Your task to perform on an android device: allow notifications from all sites in the chrome app Image 0: 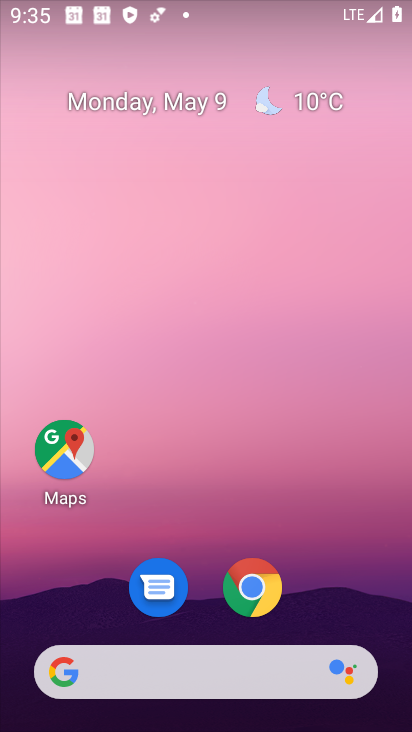
Step 0: drag from (349, 576) to (291, 137)
Your task to perform on an android device: allow notifications from all sites in the chrome app Image 1: 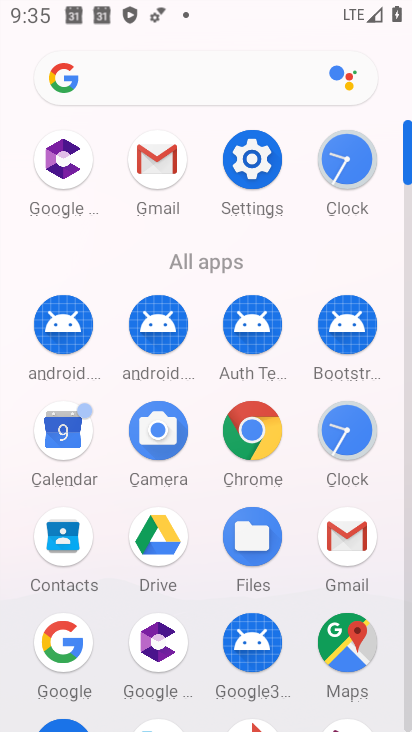
Step 1: click (246, 432)
Your task to perform on an android device: allow notifications from all sites in the chrome app Image 2: 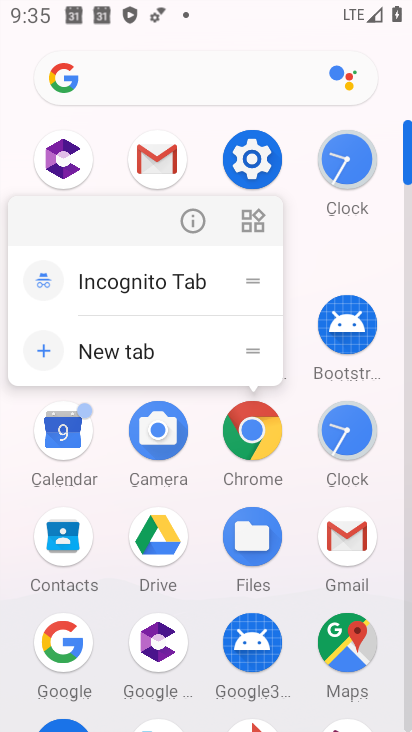
Step 2: click (190, 225)
Your task to perform on an android device: allow notifications from all sites in the chrome app Image 3: 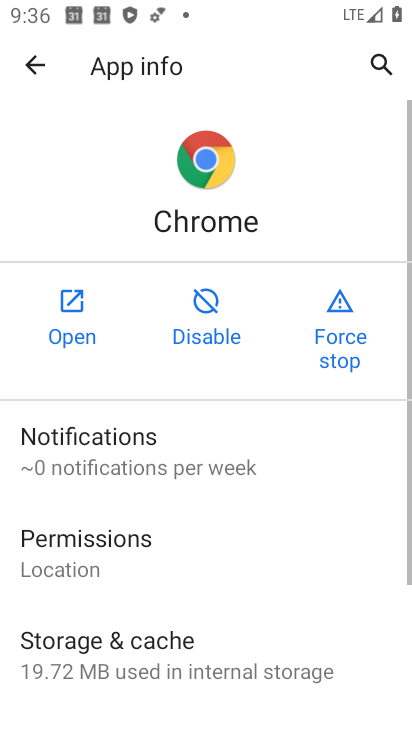
Step 3: click (180, 456)
Your task to perform on an android device: allow notifications from all sites in the chrome app Image 4: 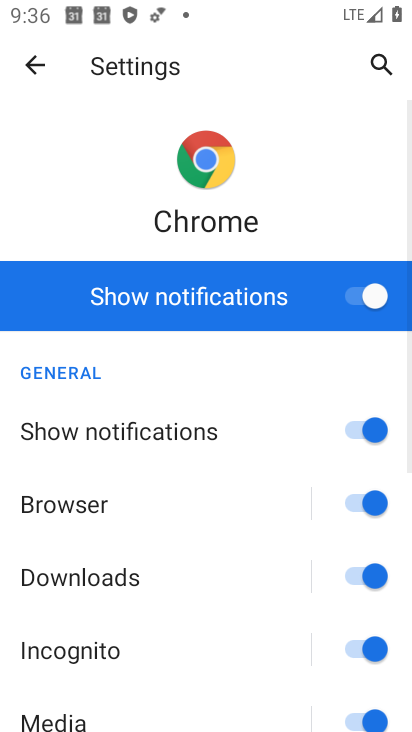
Step 4: task complete